Your task to perform on an android device: Go to Google maps Image 0: 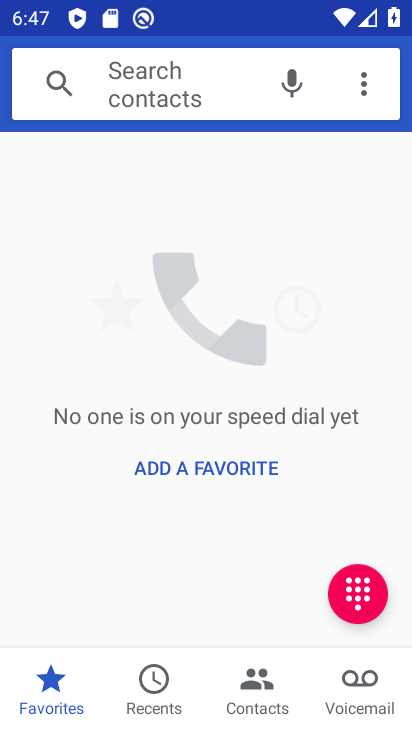
Step 0: press home button
Your task to perform on an android device: Go to Google maps Image 1: 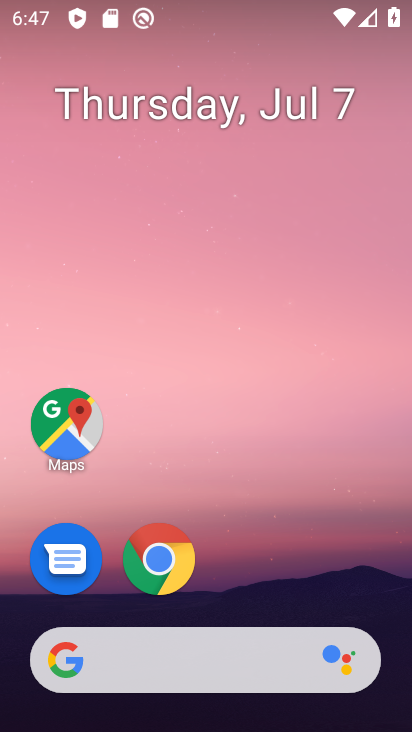
Step 1: drag from (220, 616) to (271, 270)
Your task to perform on an android device: Go to Google maps Image 2: 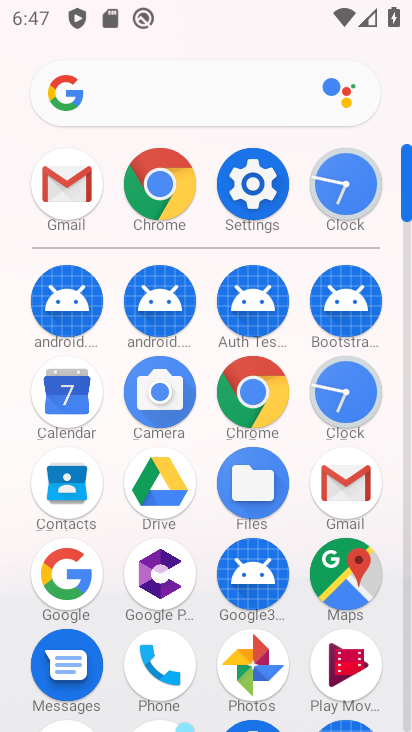
Step 2: click (350, 579)
Your task to perform on an android device: Go to Google maps Image 3: 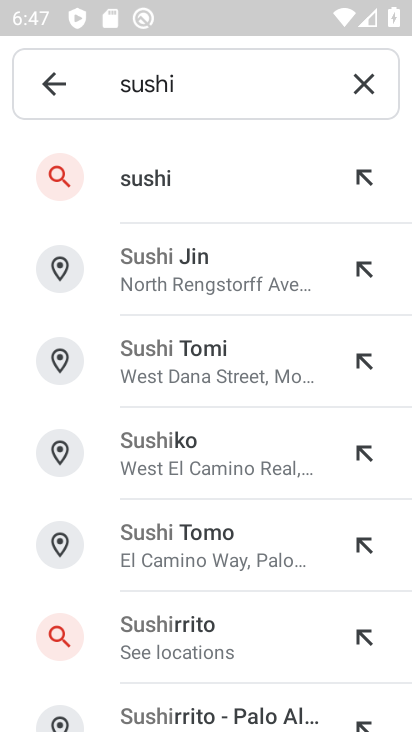
Step 3: click (65, 82)
Your task to perform on an android device: Go to Google maps Image 4: 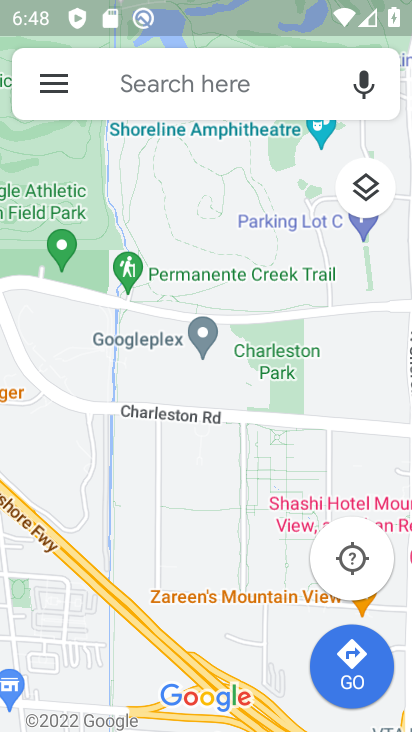
Step 4: task complete